Your task to perform on an android device: Open calendar and show me the second week of next month Image 0: 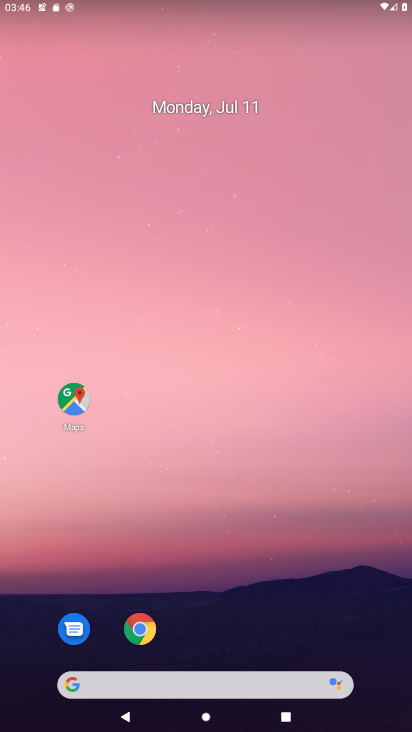
Step 0: drag from (210, 399) to (282, 11)
Your task to perform on an android device: Open calendar and show me the second week of next month Image 1: 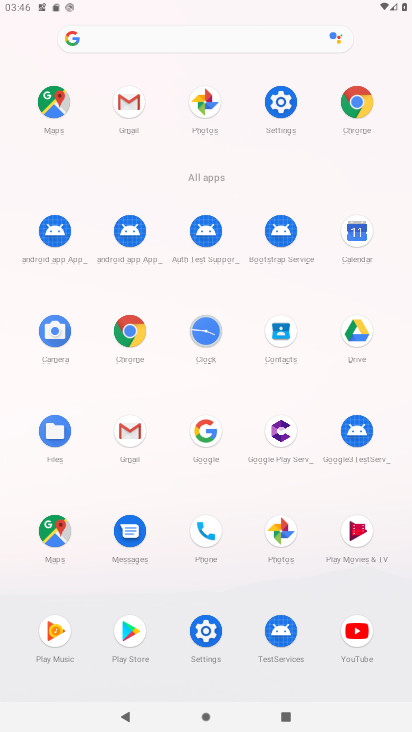
Step 1: click (351, 236)
Your task to perform on an android device: Open calendar and show me the second week of next month Image 2: 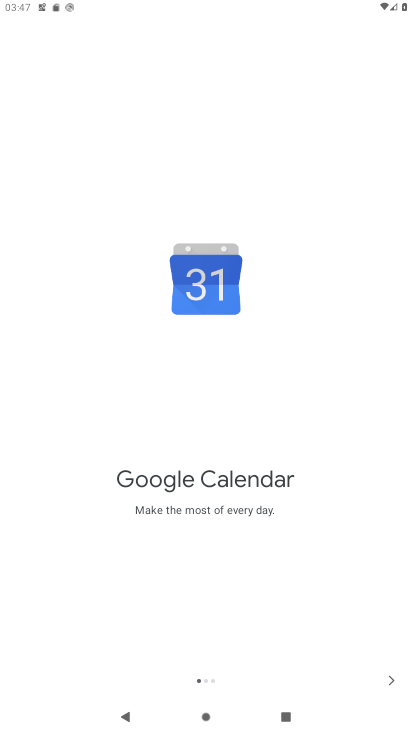
Step 2: click (390, 680)
Your task to perform on an android device: Open calendar and show me the second week of next month Image 3: 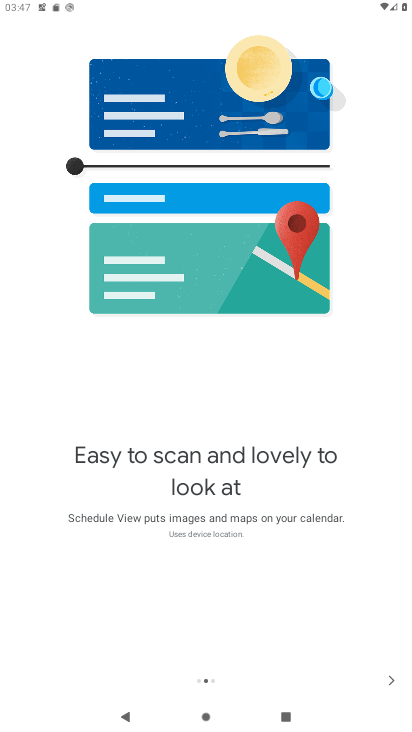
Step 3: click (396, 667)
Your task to perform on an android device: Open calendar and show me the second week of next month Image 4: 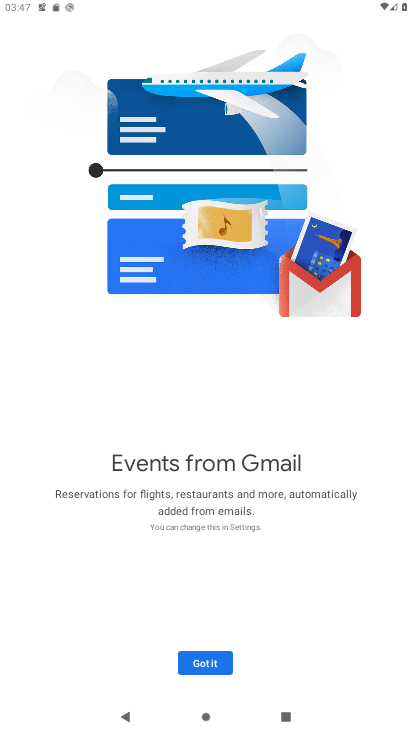
Step 4: click (370, 676)
Your task to perform on an android device: Open calendar and show me the second week of next month Image 5: 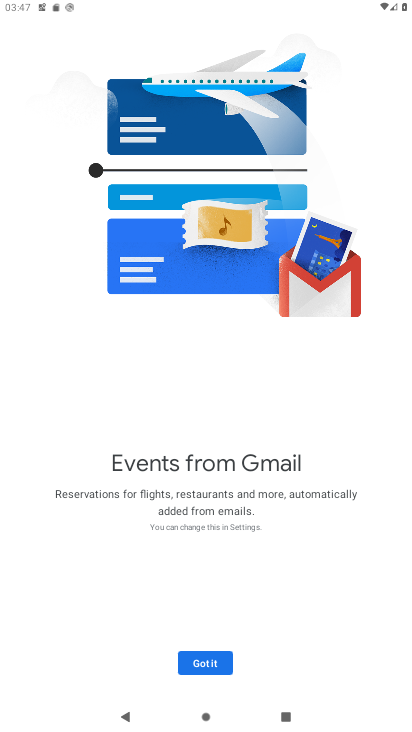
Step 5: click (201, 667)
Your task to perform on an android device: Open calendar and show me the second week of next month Image 6: 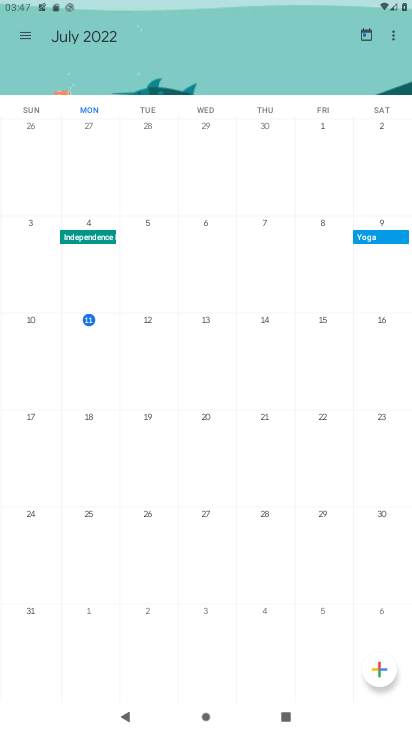
Step 6: drag from (381, 398) to (36, 380)
Your task to perform on an android device: Open calendar and show me the second week of next month Image 7: 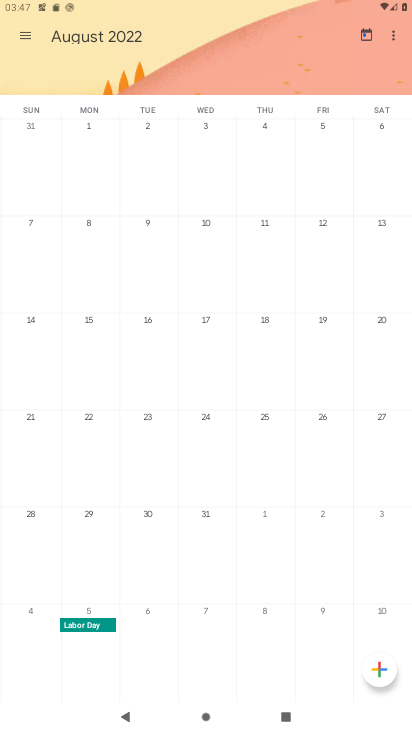
Step 7: click (81, 213)
Your task to perform on an android device: Open calendar and show me the second week of next month Image 8: 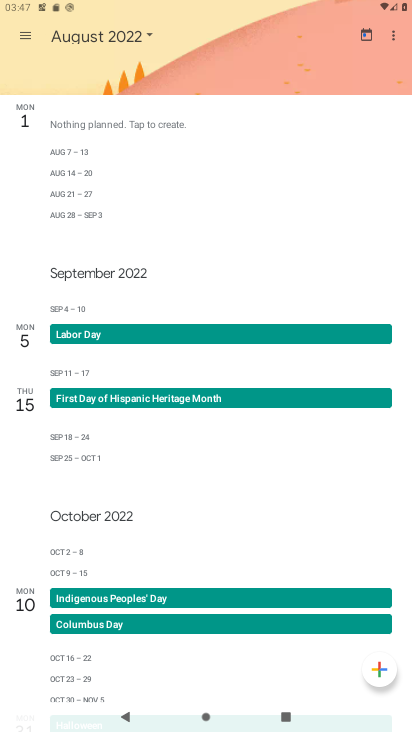
Step 8: task complete